Your task to perform on an android device: Search for Italian restaurants on Maps Image 0: 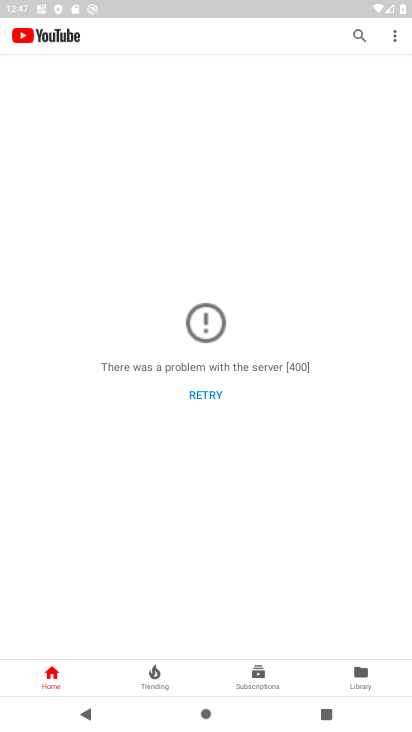
Step 0: press home button
Your task to perform on an android device: Search for Italian restaurants on Maps Image 1: 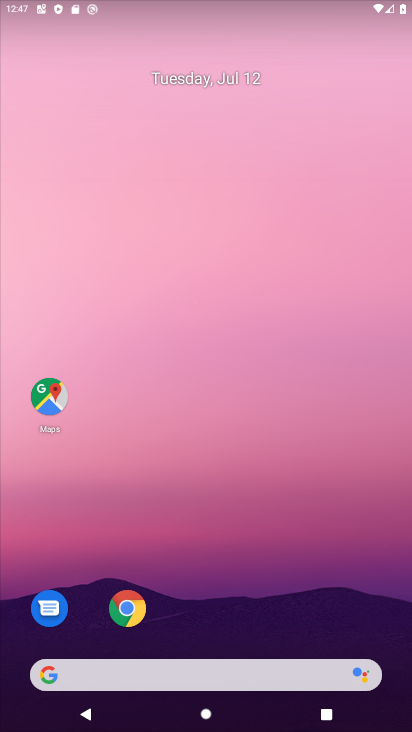
Step 1: drag from (258, 614) to (254, 243)
Your task to perform on an android device: Search for Italian restaurants on Maps Image 2: 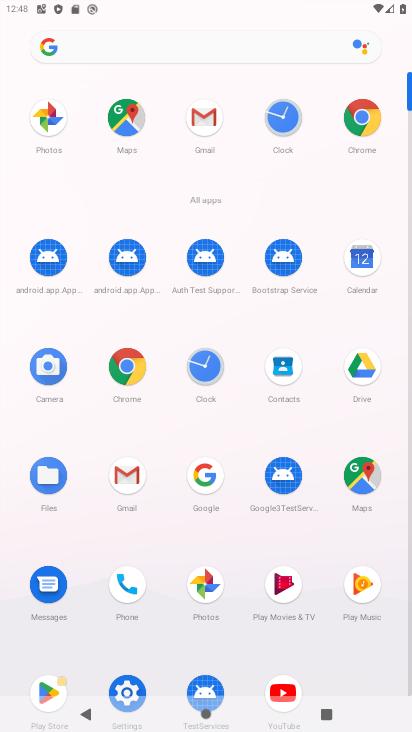
Step 2: click (376, 469)
Your task to perform on an android device: Search for Italian restaurants on Maps Image 3: 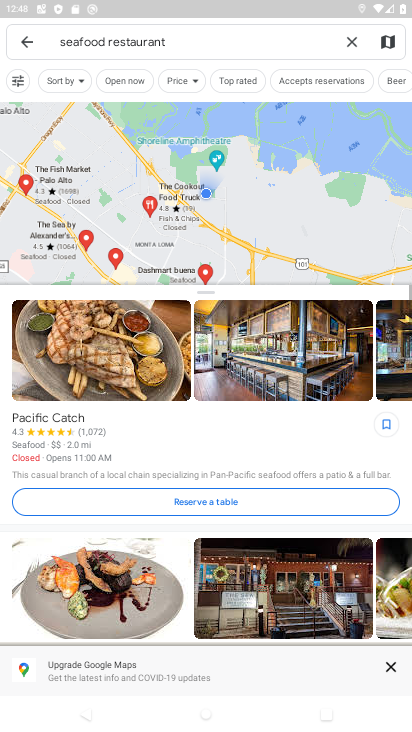
Step 3: click (353, 37)
Your task to perform on an android device: Search for Italian restaurants on Maps Image 4: 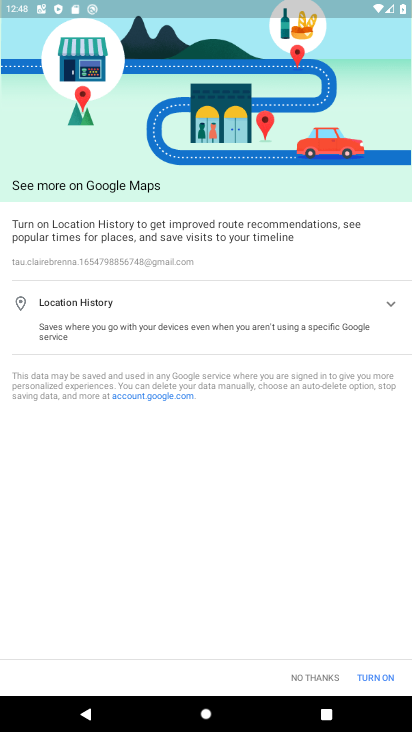
Step 4: click (367, 673)
Your task to perform on an android device: Search for Italian restaurants on Maps Image 5: 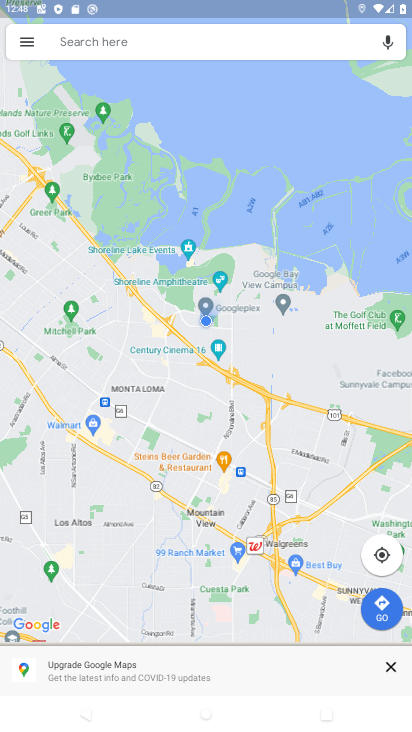
Step 5: click (190, 31)
Your task to perform on an android device: Search for Italian restaurants on Maps Image 6: 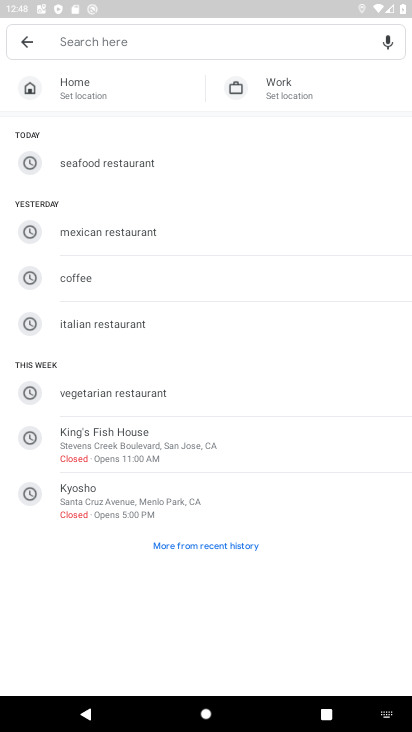
Step 6: click (120, 328)
Your task to perform on an android device: Search for Italian restaurants on Maps Image 7: 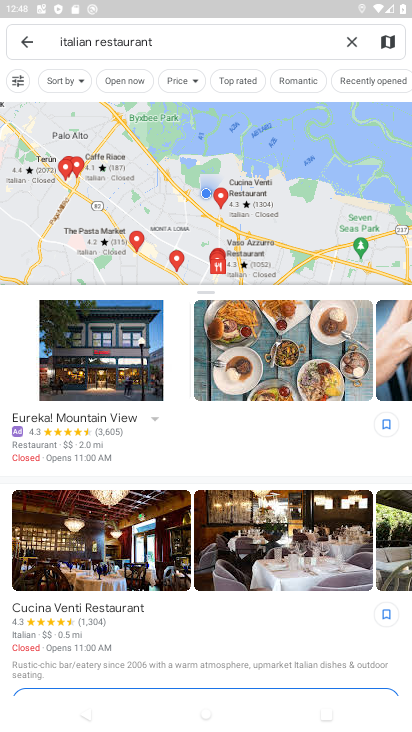
Step 7: task complete